Your task to perform on an android device: toggle translation in the chrome app Image 0: 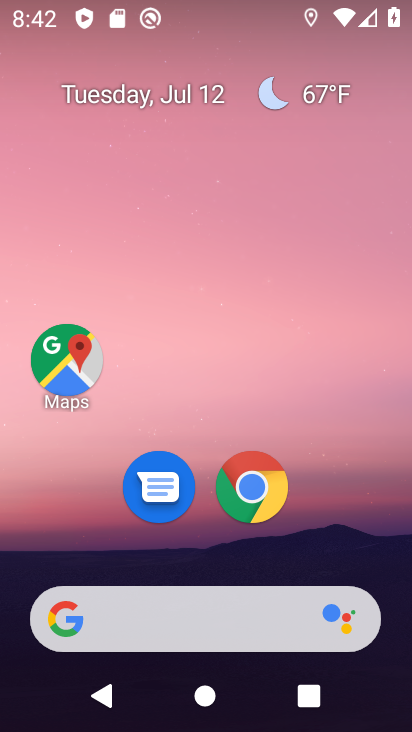
Step 0: click (259, 492)
Your task to perform on an android device: toggle translation in the chrome app Image 1: 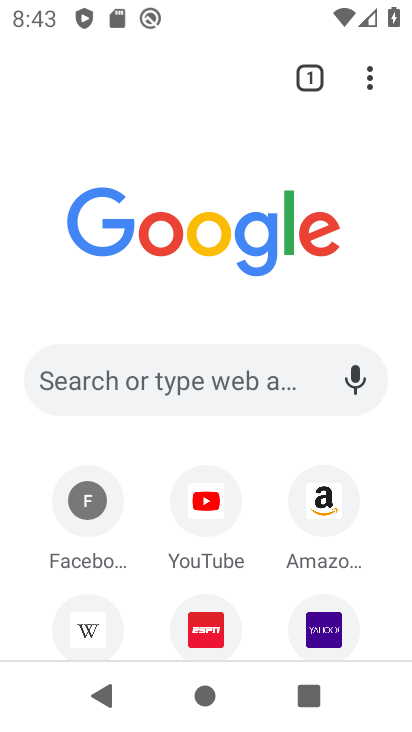
Step 1: drag from (371, 68) to (104, 549)
Your task to perform on an android device: toggle translation in the chrome app Image 2: 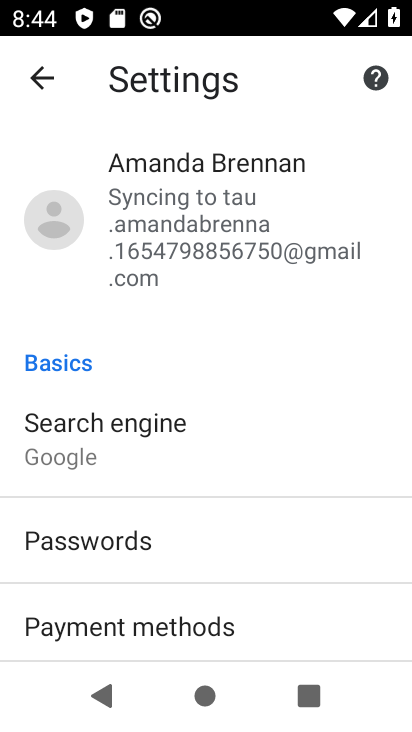
Step 2: drag from (112, 606) to (196, 68)
Your task to perform on an android device: toggle translation in the chrome app Image 3: 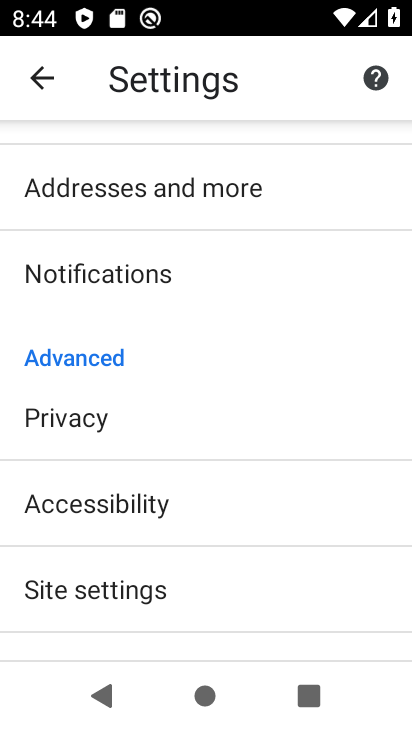
Step 3: drag from (146, 606) to (215, 188)
Your task to perform on an android device: toggle translation in the chrome app Image 4: 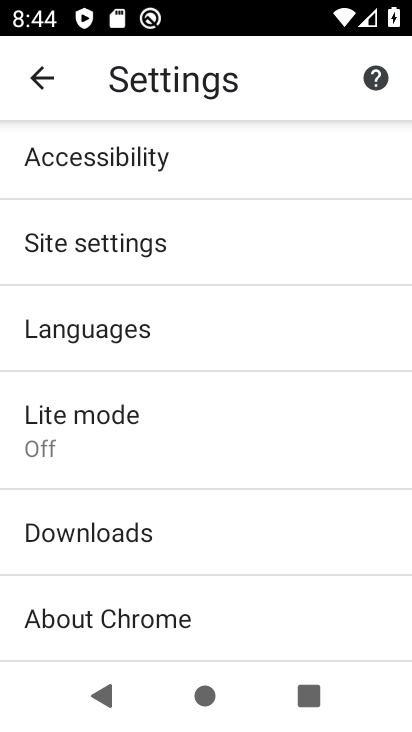
Step 4: click (124, 337)
Your task to perform on an android device: toggle translation in the chrome app Image 5: 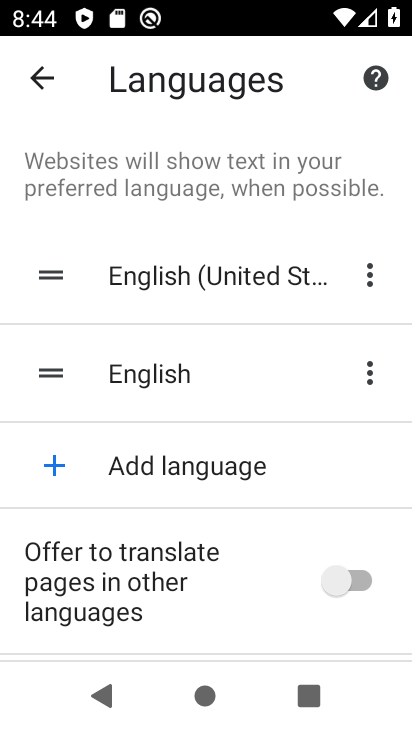
Step 5: click (352, 574)
Your task to perform on an android device: toggle translation in the chrome app Image 6: 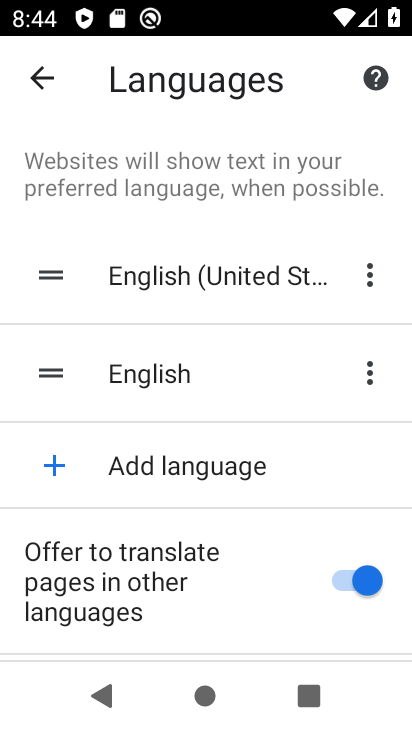
Step 6: task complete